Your task to perform on an android device: Go to battery settings Image 0: 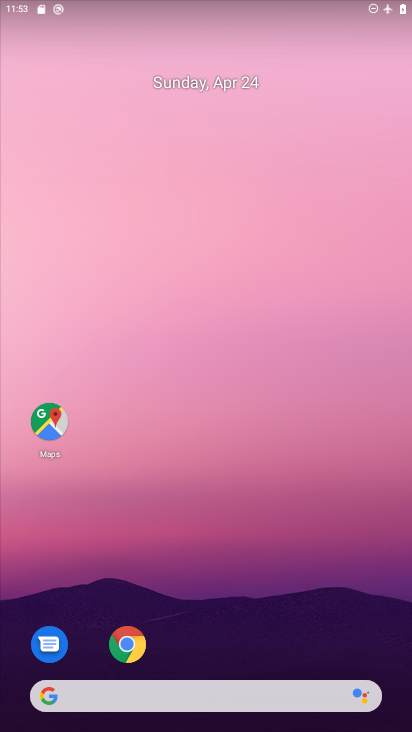
Step 0: drag from (188, 560) to (325, 22)
Your task to perform on an android device: Go to battery settings Image 1: 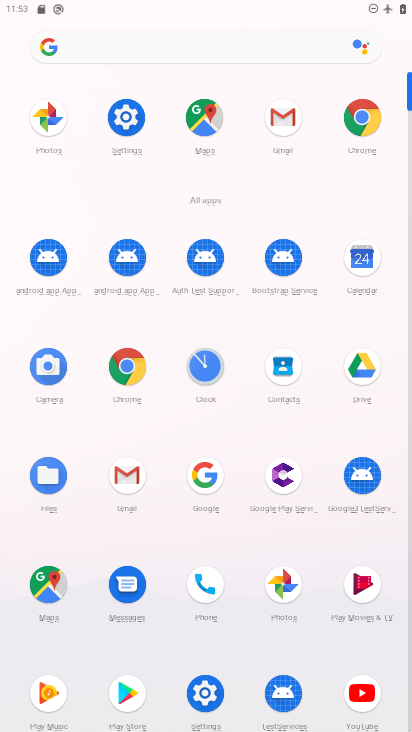
Step 1: click (201, 693)
Your task to perform on an android device: Go to battery settings Image 2: 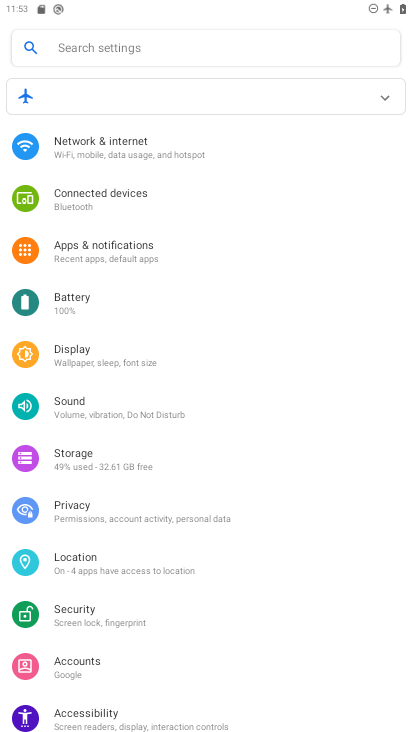
Step 2: click (76, 297)
Your task to perform on an android device: Go to battery settings Image 3: 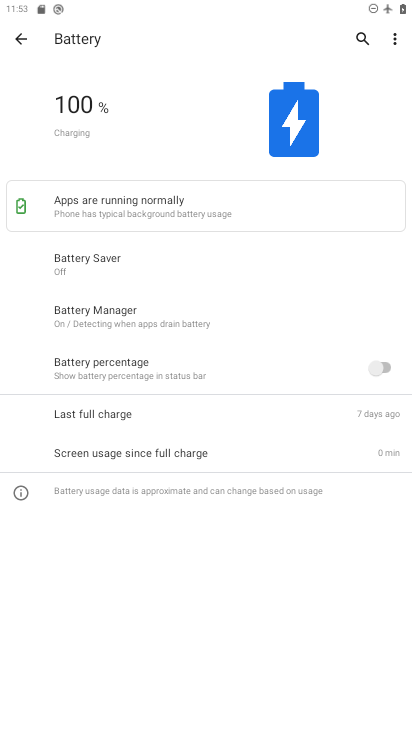
Step 3: task complete